Your task to perform on an android device: Search for macbook pro on bestbuy, select the first entry, and add it to the cart. Image 0: 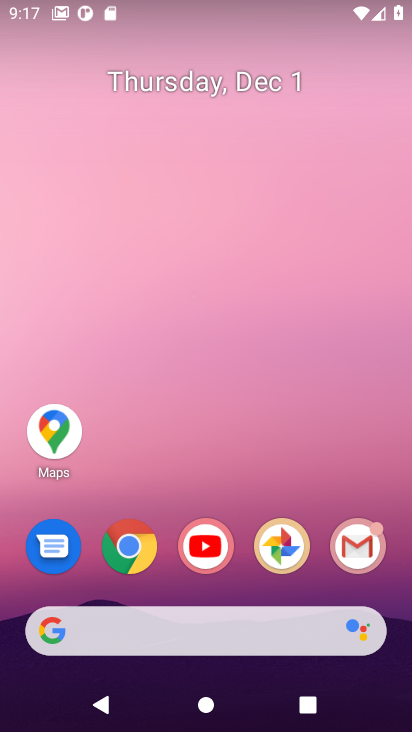
Step 0: click (123, 550)
Your task to perform on an android device: Search for macbook pro on bestbuy, select the first entry, and add it to the cart. Image 1: 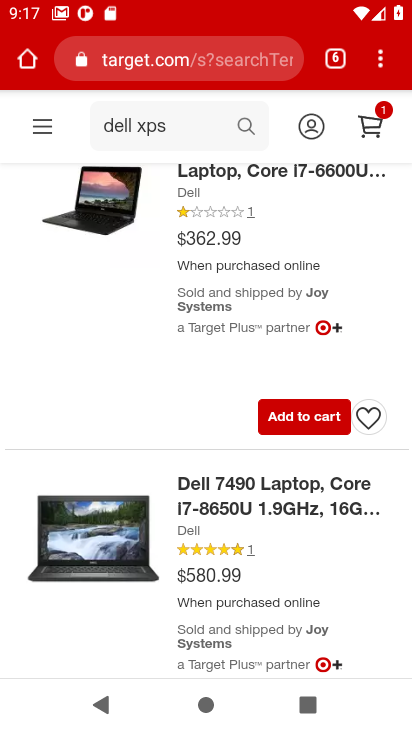
Step 1: click (176, 66)
Your task to perform on an android device: Search for macbook pro on bestbuy, select the first entry, and add it to the cart. Image 2: 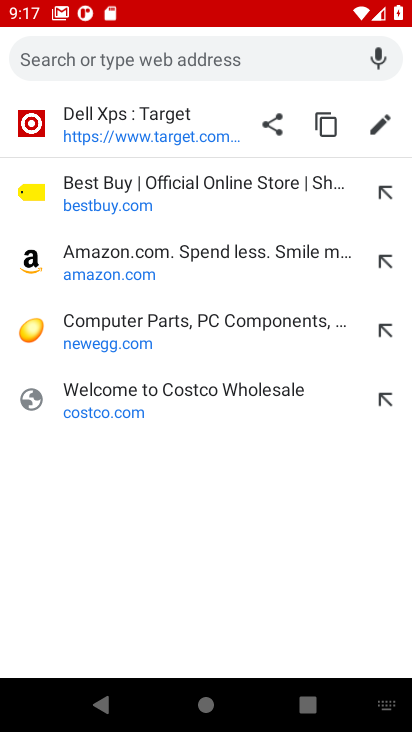
Step 2: click (86, 203)
Your task to perform on an android device: Search for macbook pro on bestbuy, select the first entry, and add it to the cart. Image 3: 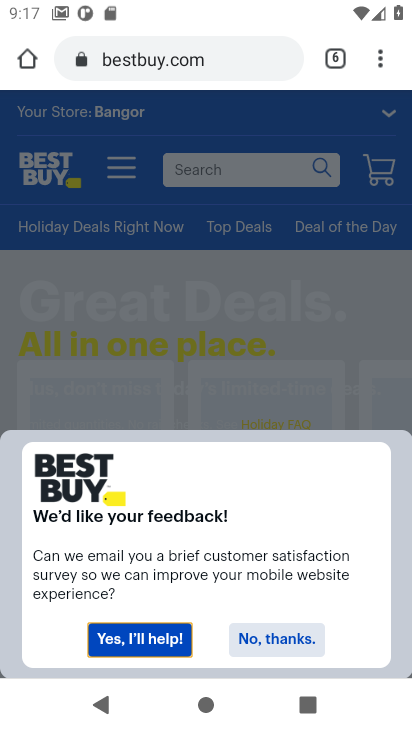
Step 3: click (304, 635)
Your task to perform on an android device: Search for macbook pro on bestbuy, select the first entry, and add it to the cart. Image 4: 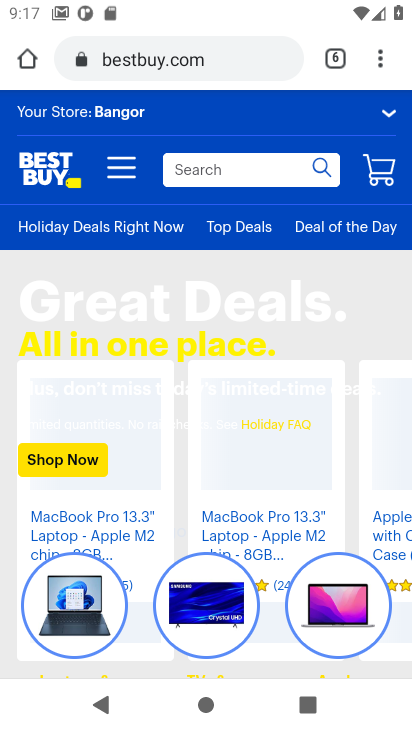
Step 4: click (244, 171)
Your task to perform on an android device: Search for macbook pro on bestbuy, select the first entry, and add it to the cart. Image 5: 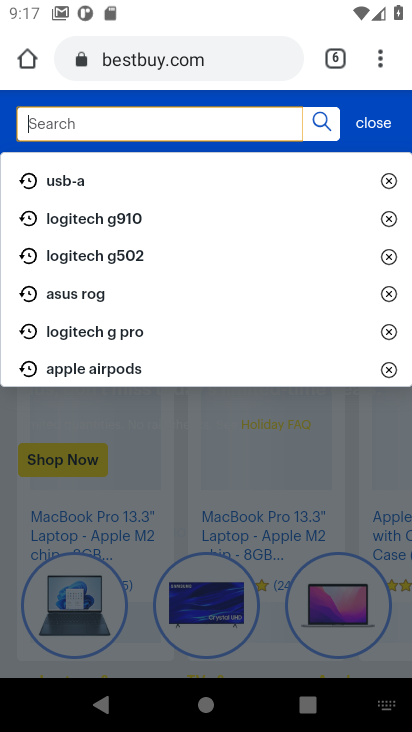
Step 5: type "macbook pro"
Your task to perform on an android device: Search for macbook pro on bestbuy, select the first entry, and add it to the cart. Image 6: 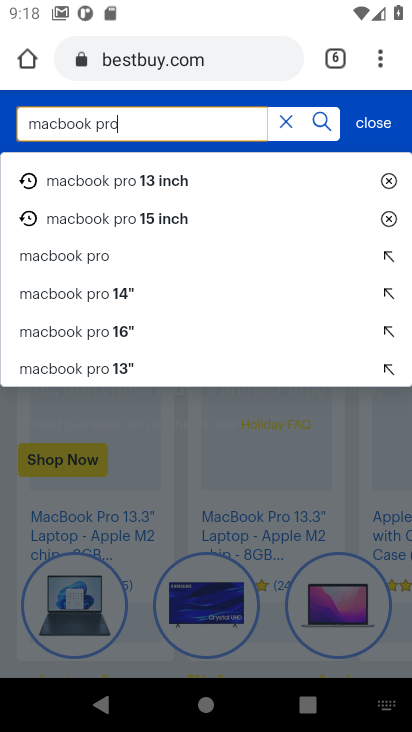
Step 6: click (64, 263)
Your task to perform on an android device: Search for macbook pro on bestbuy, select the first entry, and add it to the cart. Image 7: 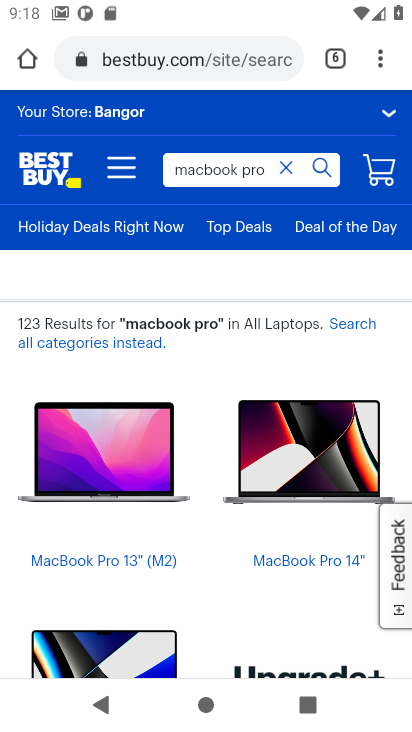
Step 7: drag from (212, 481) to (225, 262)
Your task to perform on an android device: Search for macbook pro on bestbuy, select the first entry, and add it to the cart. Image 8: 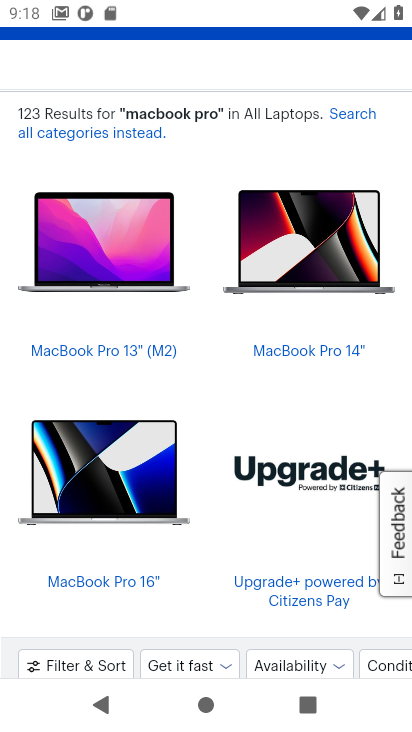
Step 8: drag from (197, 500) to (186, 278)
Your task to perform on an android device: Search for macbook pro on bestbuy, select the first entry, and add it to the cart. Image 9: 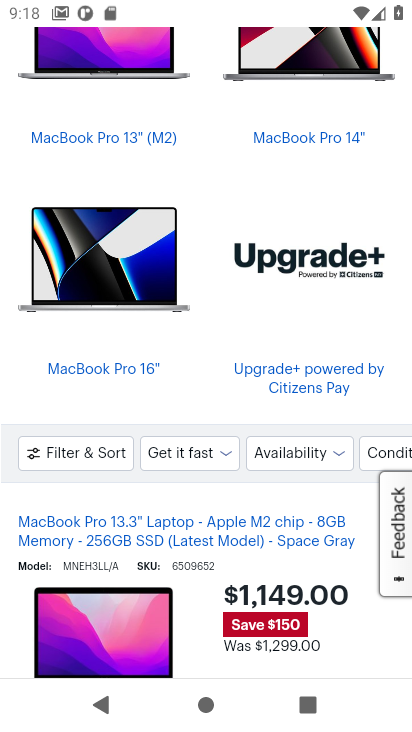
Step 9: drag from (158, 436) to (157, 311)
Your task to perform on an android device: Search for macbook pro on bestbuy, select the first entry, and add it to the cart. Image 10: 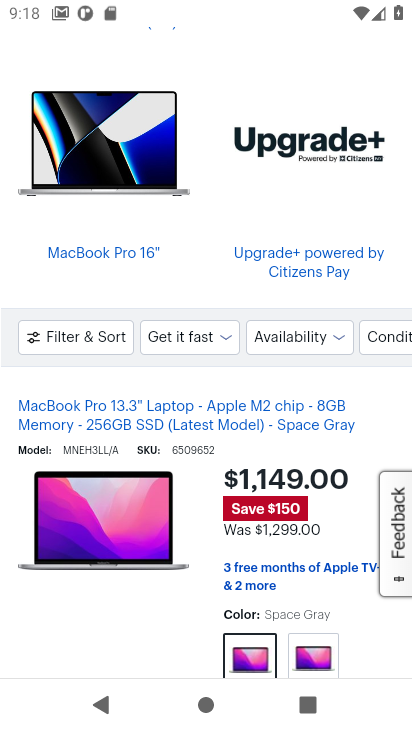
Step 10: drag from (207, 493) to (198, 272)
Your task to perform on an android device: Search for macbook pro on bestbuy, select the first entry, and add it to the cart. Image 11: 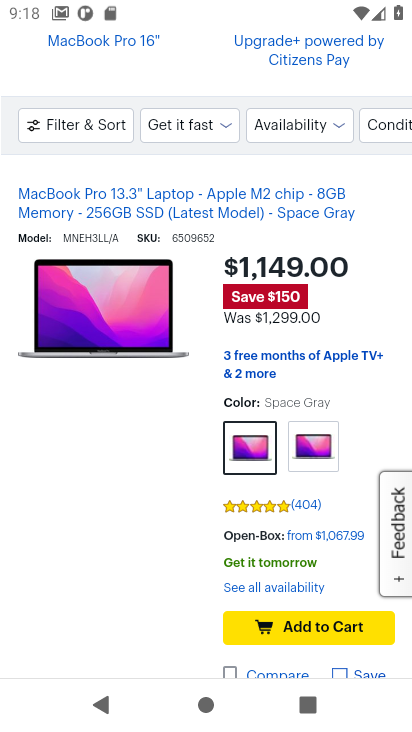
Step 11: click (291, 627)
Your task to perform on an android device: Search for macbook pro on bestbuy, select the first entry, and add it to the cart. Image 12: 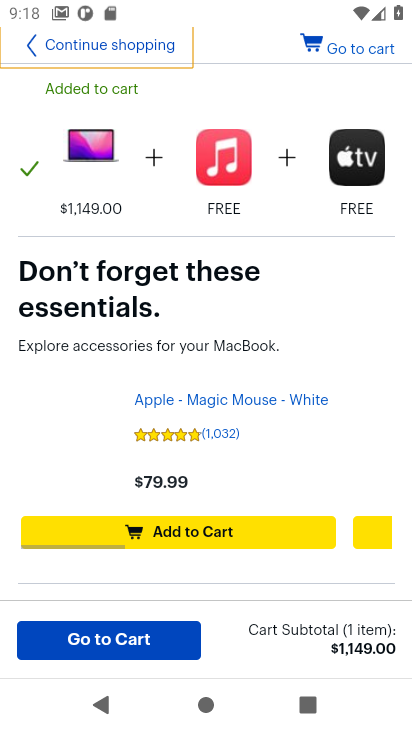
Step 12: task complete